Your task to perform on an android device: find which apps use the phone's location Image 0: 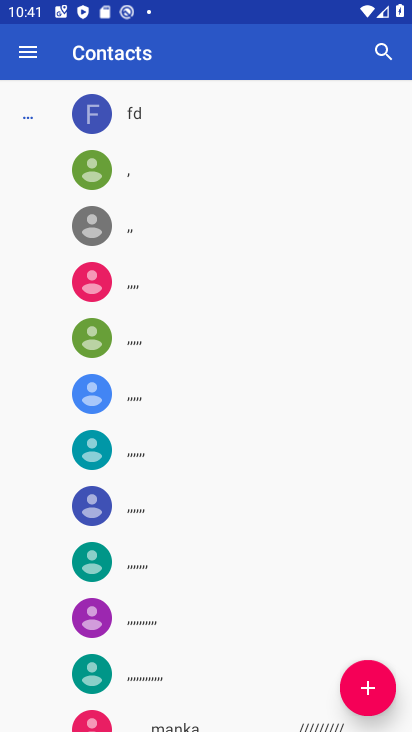
Step 0: press home button
Your task to perform on an android device: find which apps use the phone's location Image 1: 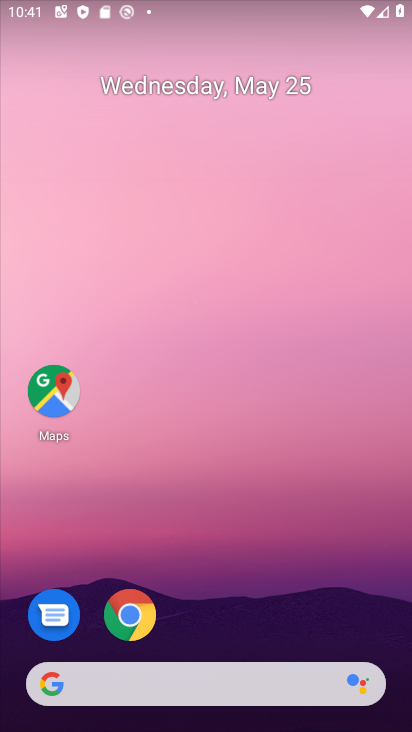
Step 1: drag from (303, 551) to (288, 346)
Your task to perform on an android device: find which apps use the phone's location Image 2: 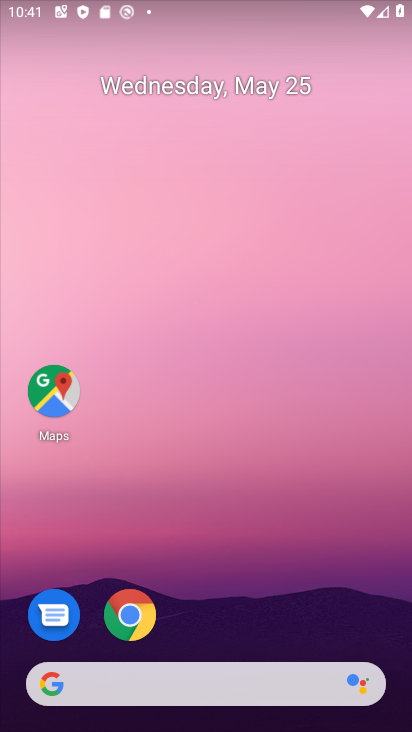
Step 2: drag from (286, 585) to (282, 192)
Your task to perform on an android device: find which apps use the phone's location Image 3: 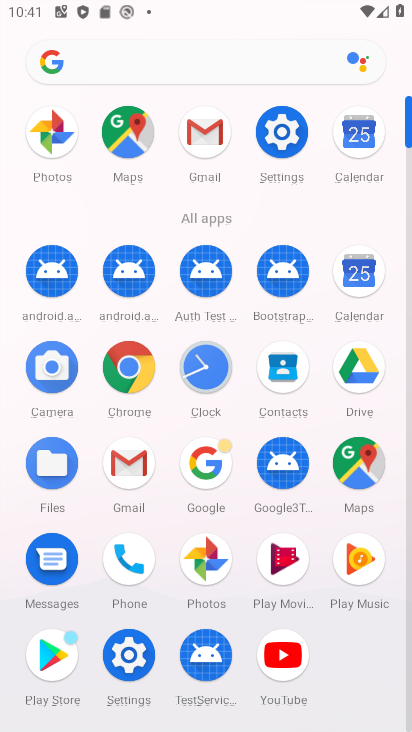
Step 3: click (280, 154)
Your task to perform on an android device: find which apps use the phone's location Image 4: 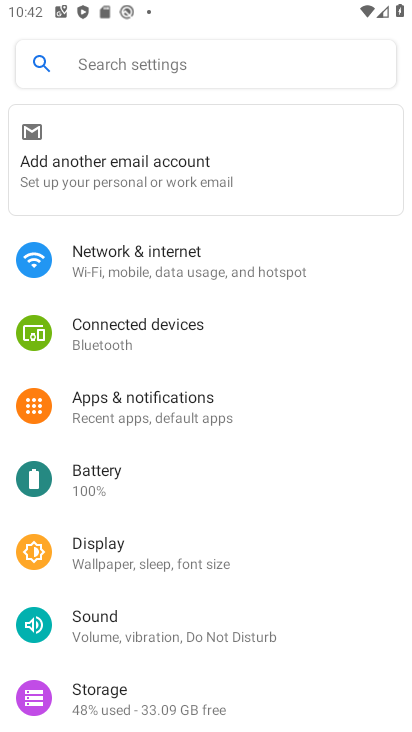
Step 4: drag from (279, 670) to (288, 302)
Your task to perform on an android device: find which apps use the phone's location Image 5: 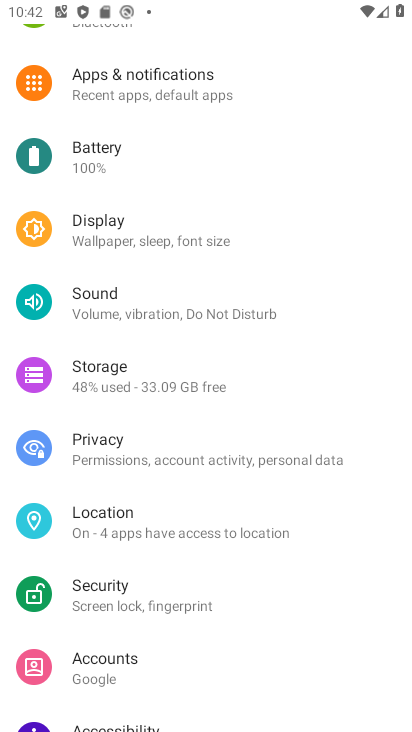
Step 5: click (97, 512)
Your task to perform on an android device: find which apps use the phone's location Image 6: 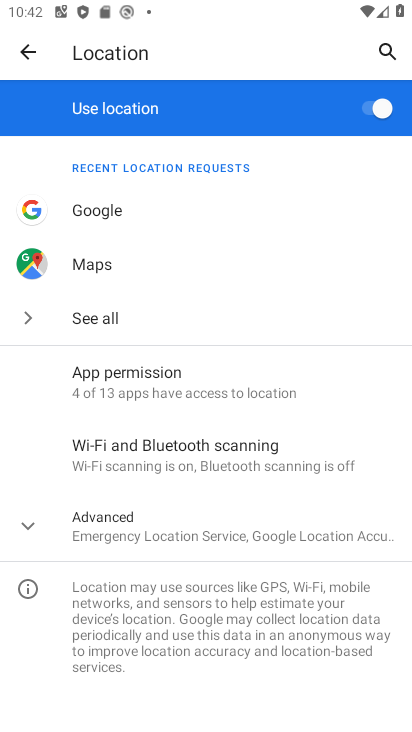
Step 6: task complete